Your task to perform on an android device: turn off location history Image 0: 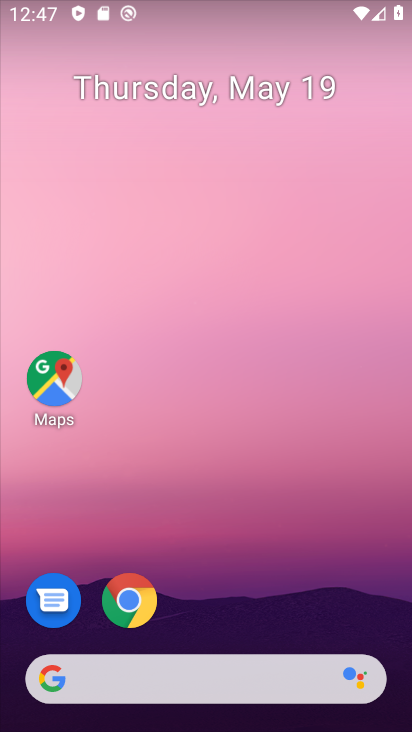
Step 0: drag from (220, 619) to (299, 0)
Your task to perform on an android device: turn off location history Image 1: 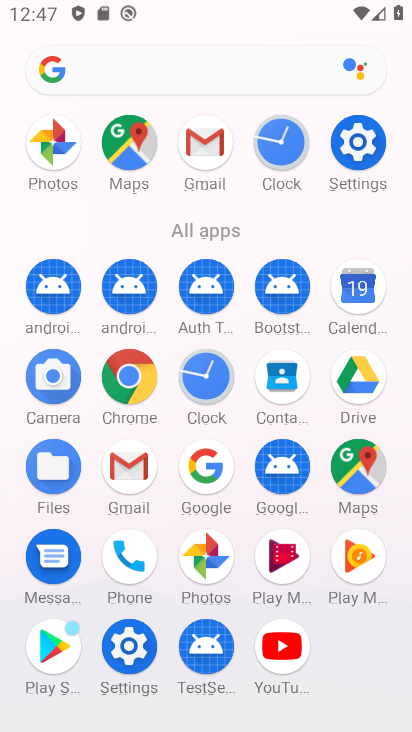
Step 1: click (341, 147)
Your task to perform on an android device: turn off location history Image 2: 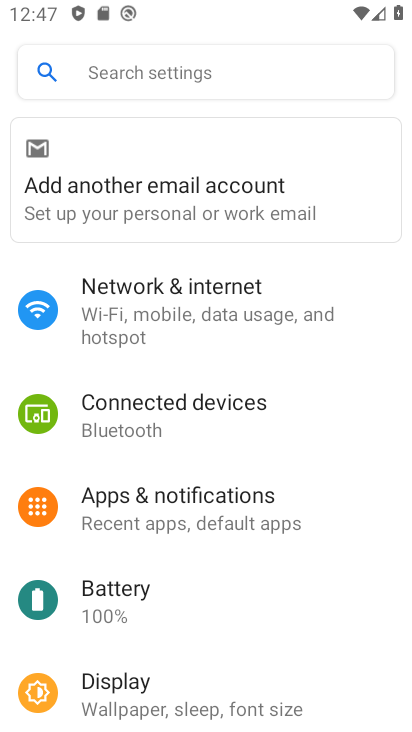
Step 2: drag from (132, 564) to (178, 251)
Your task to perform on an android device: turn off location history Image 3: 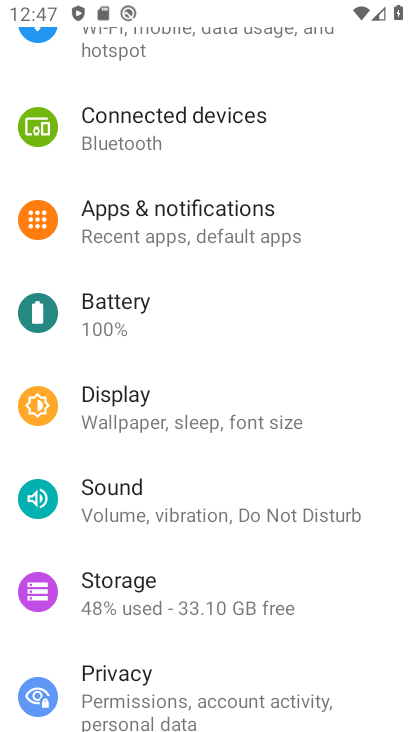
Step 3: drag from (146, 583) to (182, 333)
Your task to perform on an android device: turn off location history Image 4: 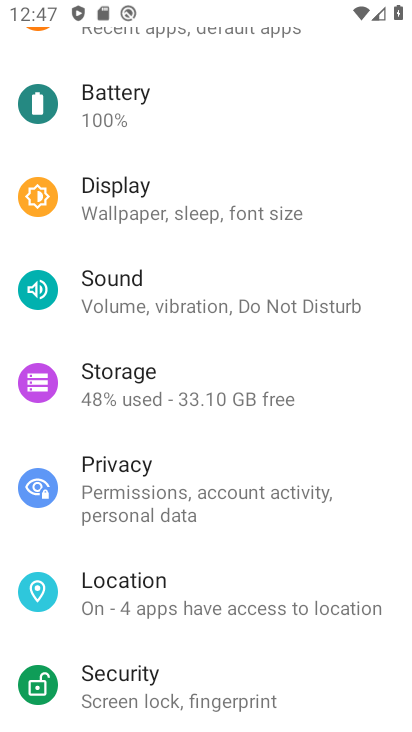
Step 4: drag from (123, 486) to (207, 271)
Your task to perform on an android device: turn off location history Image 5: 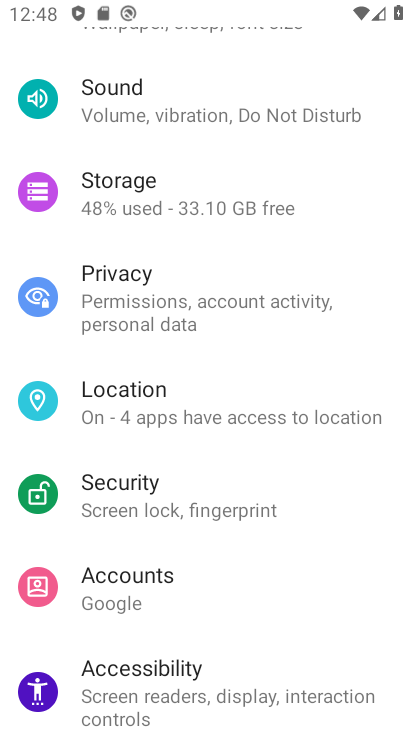
Step 5: drag from (186, 504) to (246, 287)
Your task to perform on an android device: turn off location history Image 6: 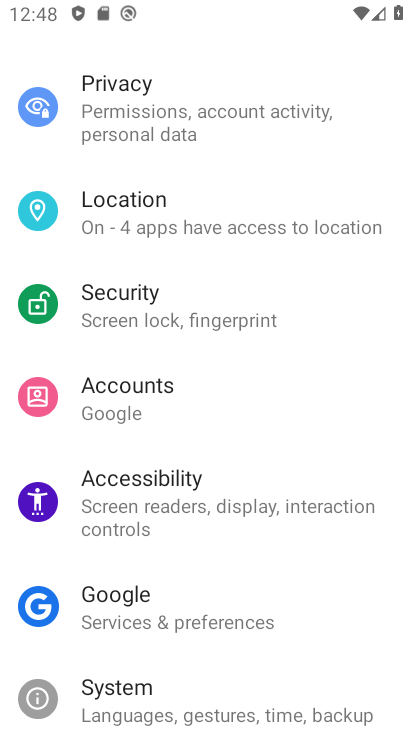
Step 6: click (179, 220)
Your task to perform on an android device: turn off location history Image 7: 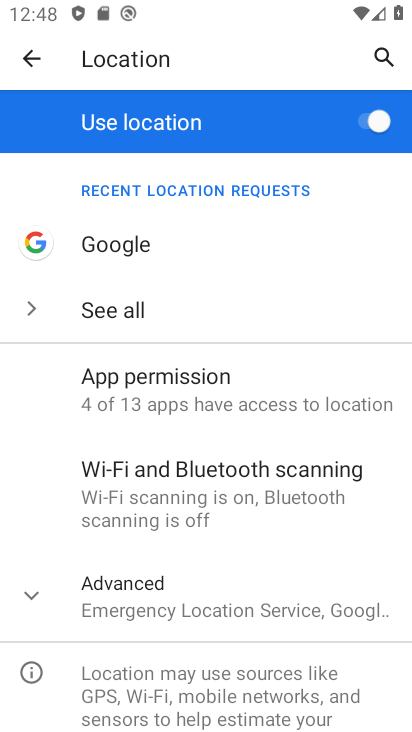
Step 7: click (164, 602)
Your task to perform on an android device: turn off location history Image 8: 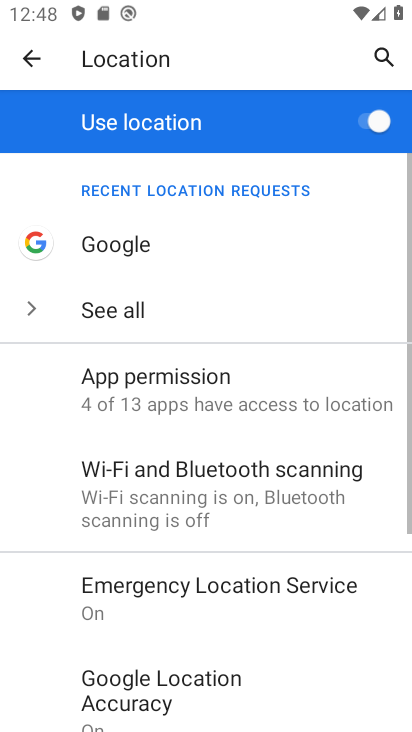
Step 8: drag from (162, 593) to (233, 285)
Your task to perform on an android device: turn off location history Image 9: 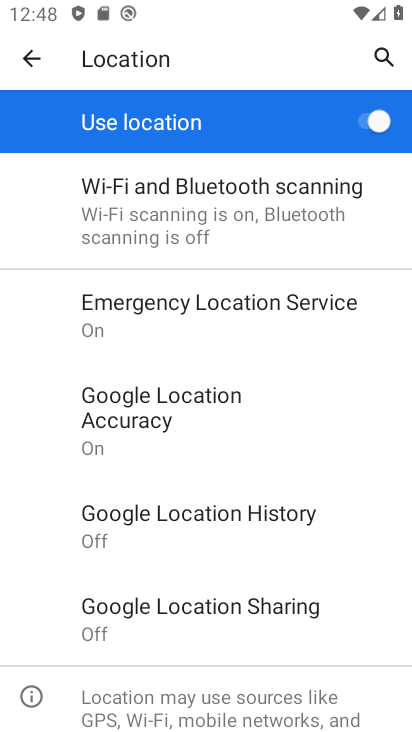
Step 9: click (205, 518)
Your task to perform on an android device: turn off location history Image 10: 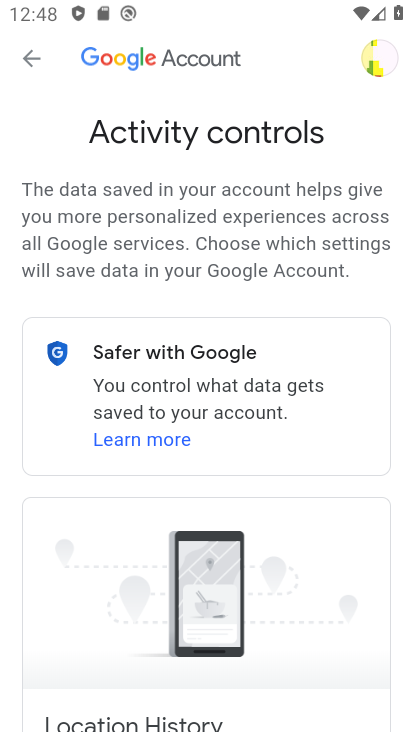
Step 10: task complete